Your task to perform on an android device: add a contact Image 0: 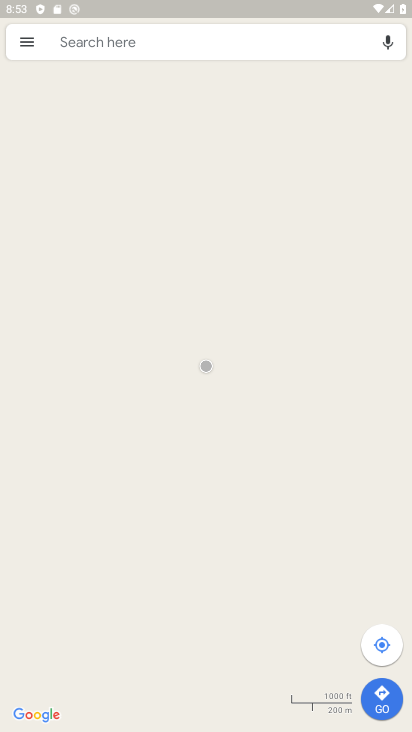
Step 0: press back button
Your task to perform on an android device: add a contact Image 1: 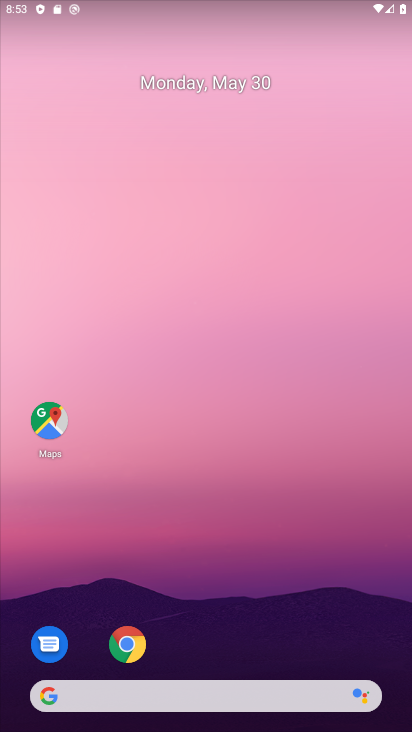
Step 1: drag from (191, 619) to (245, 14)
Your task to perform on an android device: add a contact Image 2: 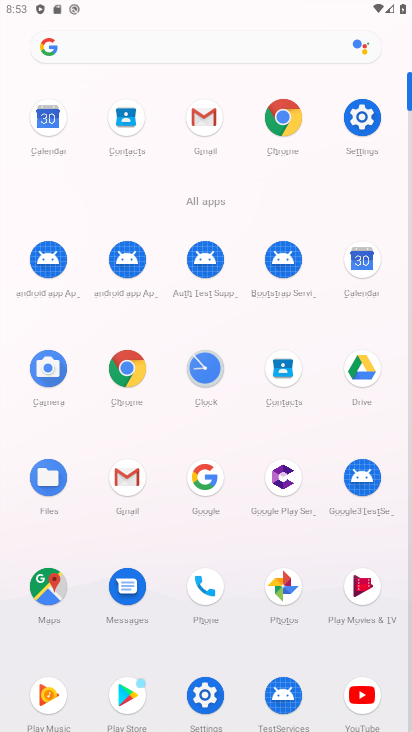
Step 2: click (275, 376)
Your task to perform on an android device: add a contact Image 3: 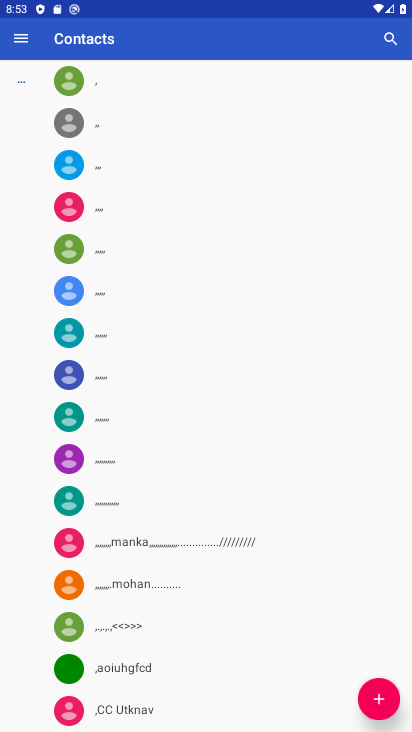
Step 3: click (375, 698)
Your task to perform on an android device: add a contact Image 4: 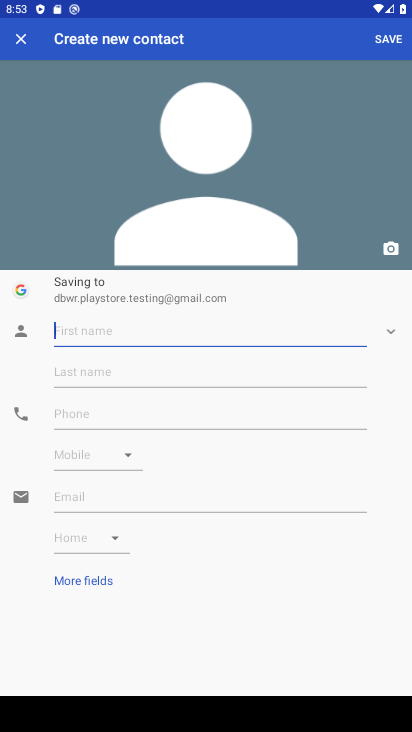
Step 4: type "vvfdd"
Your task to perform on an android device: add a contact Image 5: 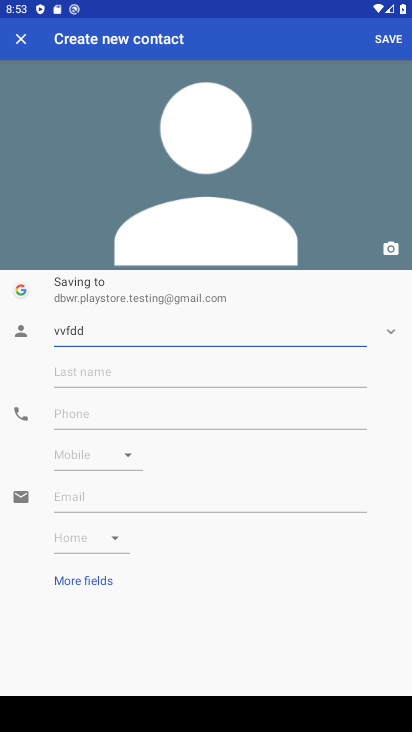
Step 5: click (107, 412)
Your task to perform on an android device: add a contact Image 6: 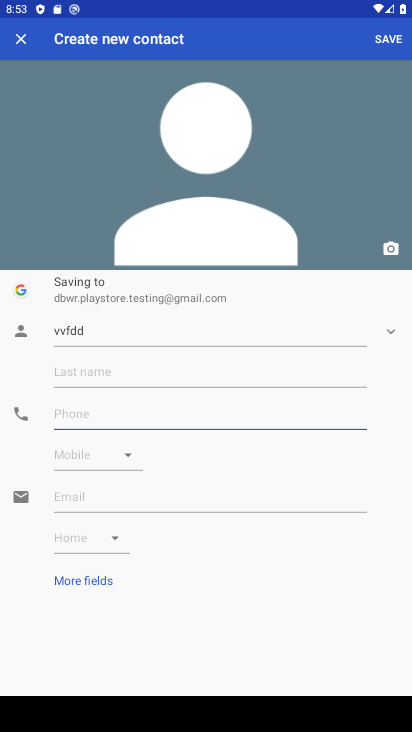
Step 6: type "56476"
Your task to perform on an android device: add a contact Image 7: 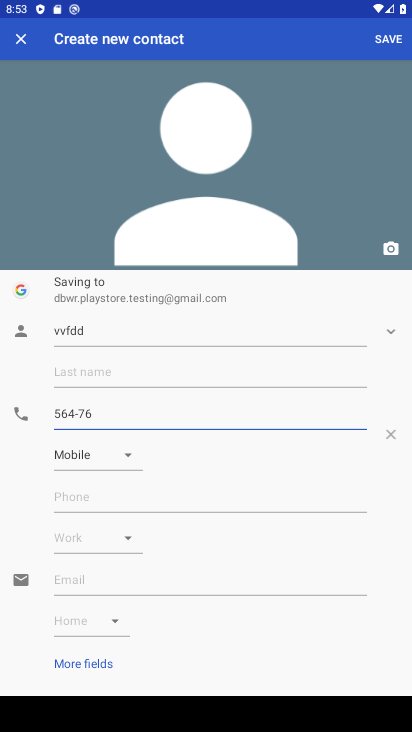
Step 7: click (386, 36)
Your task to perform on an android device: add a contact Image 8: 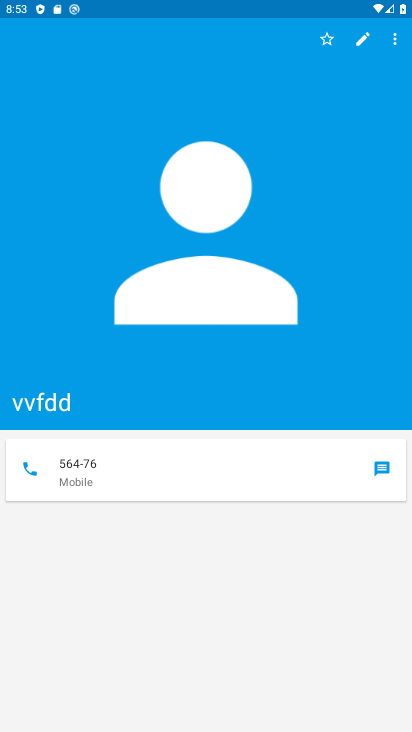
Step 8: task complete